Your task to perform on an android device: check google app version Image 0: 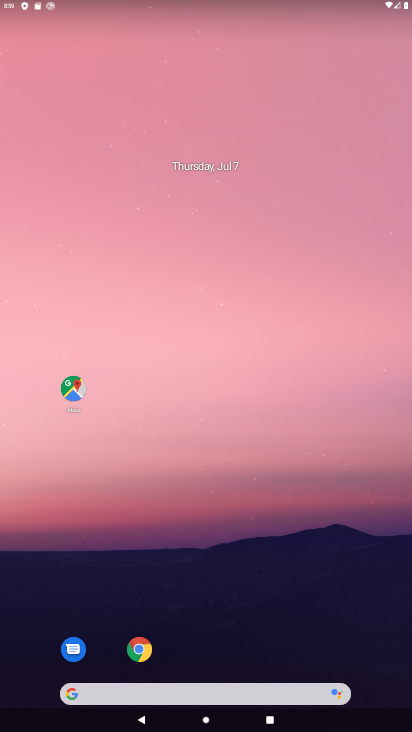
Step 0: drag from (240, 555) to (245, 316)
Your task to perform on an android device: check google app version Image 1: 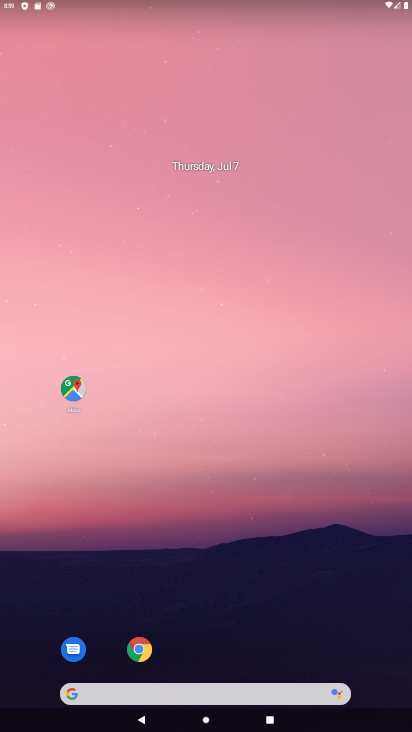
Step 1: drag from (237, 414) to (290, 89)
Your task to perform on an android device: check google app version Image 2: 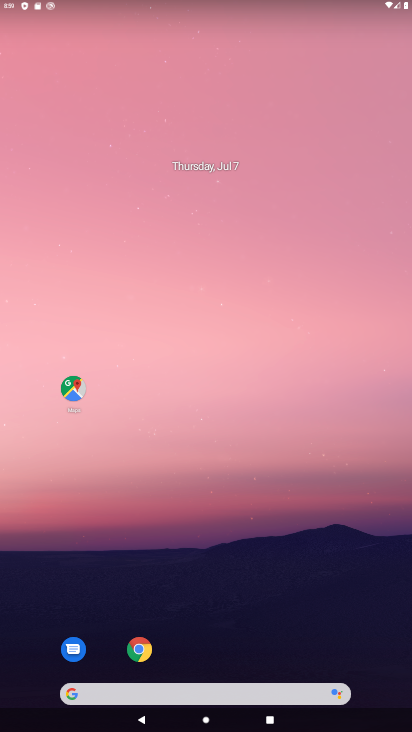
Step 2: drag from (217, 565) to (345, 8)
Your task to perform on an android device: check google app version Image 3: 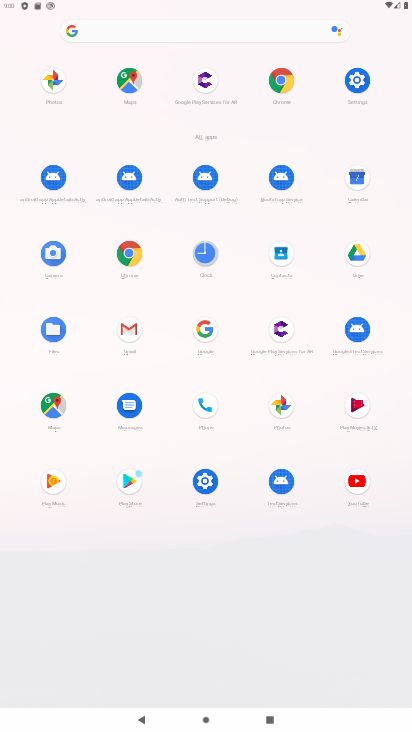
Step 3: click (212, 334)
Your task to perform on an android device: check google app version Image 4: 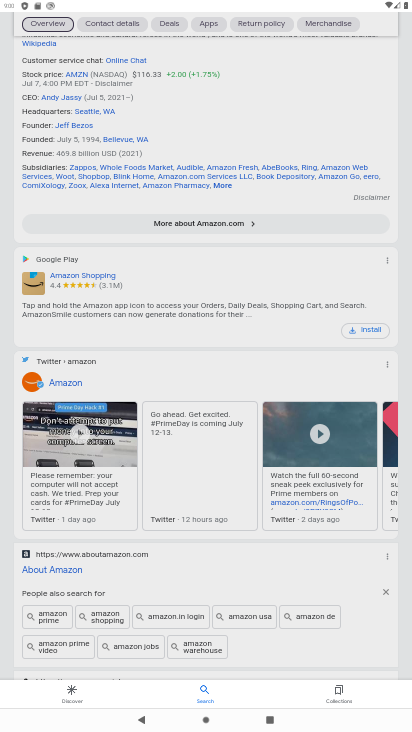
Step 4: click (144, 720)
Your task to perform on an android device: check google app version Image 5: 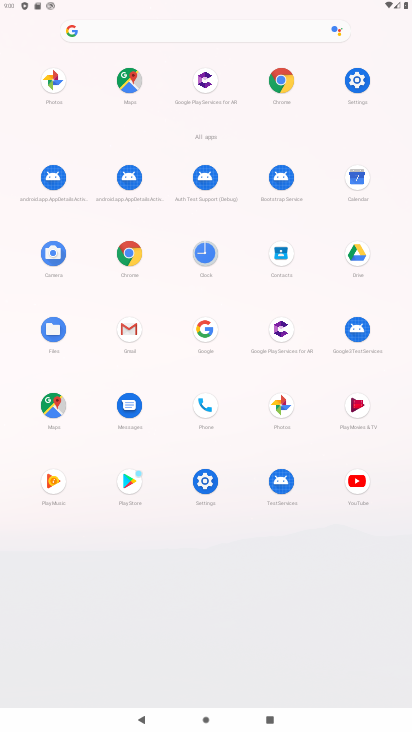
Step 5: click (205, 326)
Your task to perform on an android device: check google app version Image 6: 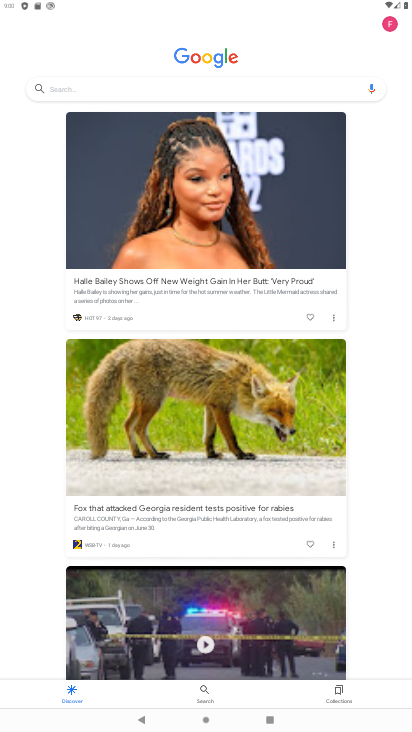
Step 6: click (386, 25)
Your task to perform on an android device: check google app version Image 7: 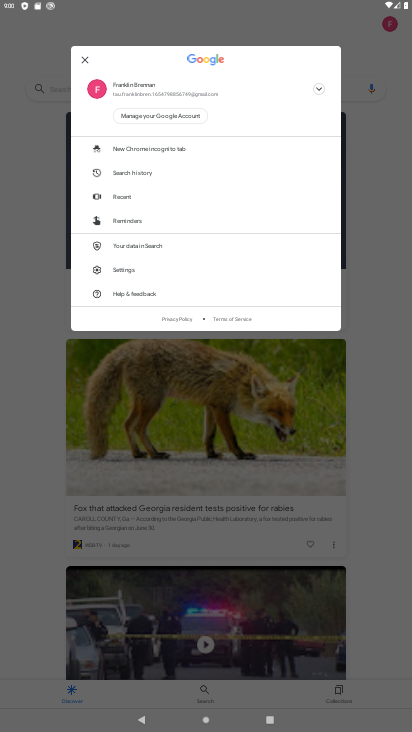
Step 7: click (131, 273)
Your task to perform on an android device: check google app version Image 8: 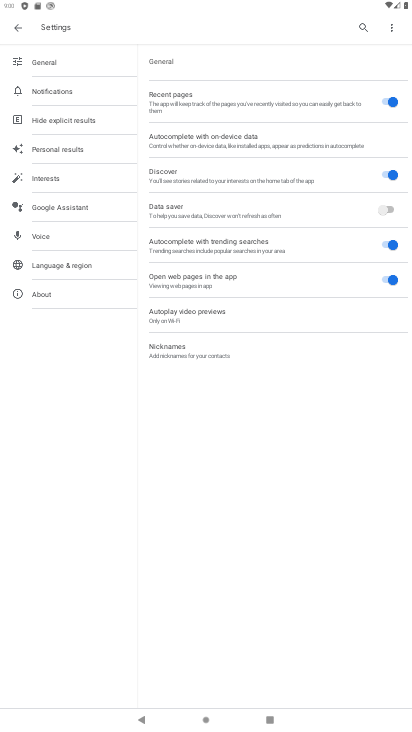
Step 8: click (45, 295)
Your task to perform on an android device: check google app version Image 9: 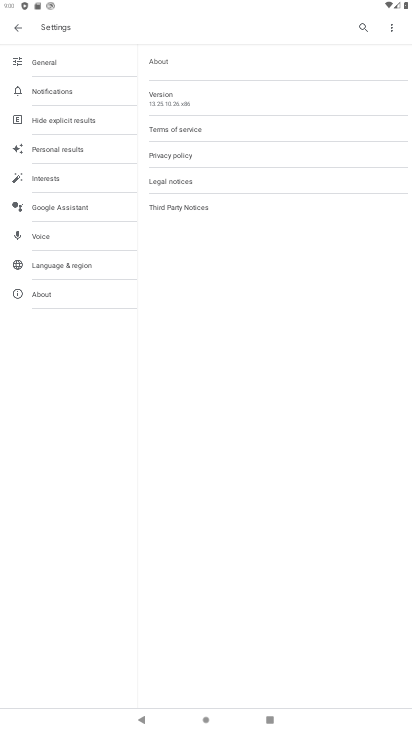
Step 9: task complete